Your task to perform on an android device: Open privacy settings Image 0: 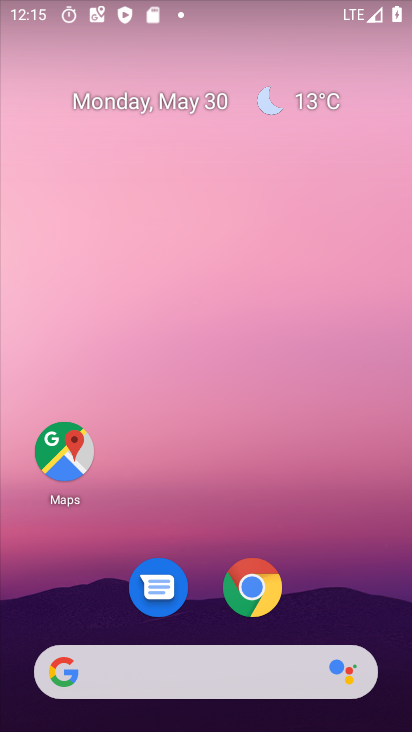
Step 0: drag from (319, 534) to (207, 78)
Your task to perform on an android device: Open privacy settings Image 1: 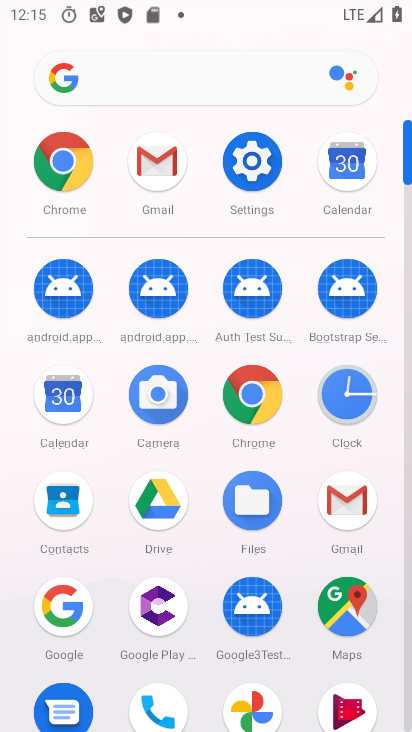
Step 1: click (245, 149)
Your task to perform on an android device: Open privacy settings Image 2: 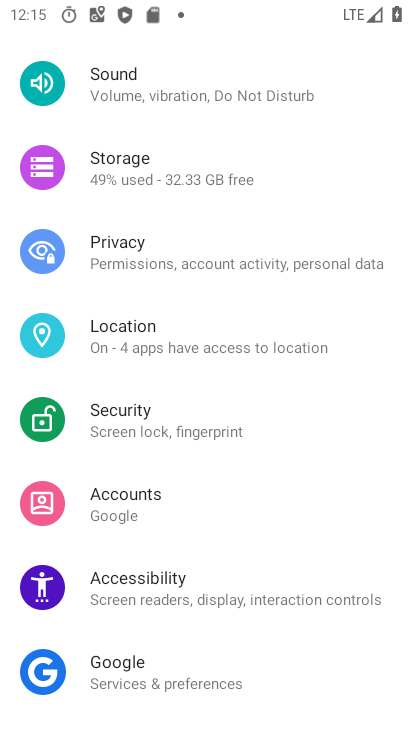
Step 2: click (204, 264)
Your task to perform on an android device: Open privacy settings Image 3: 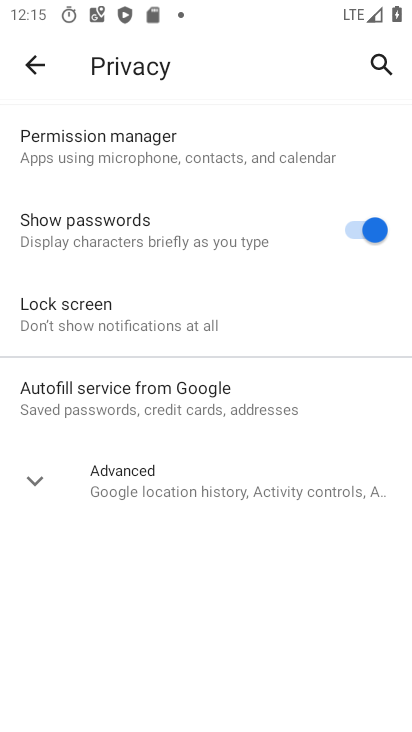
Step 3: task complete